Your task to perform on an android device: create a new album in the google photos Image 0: 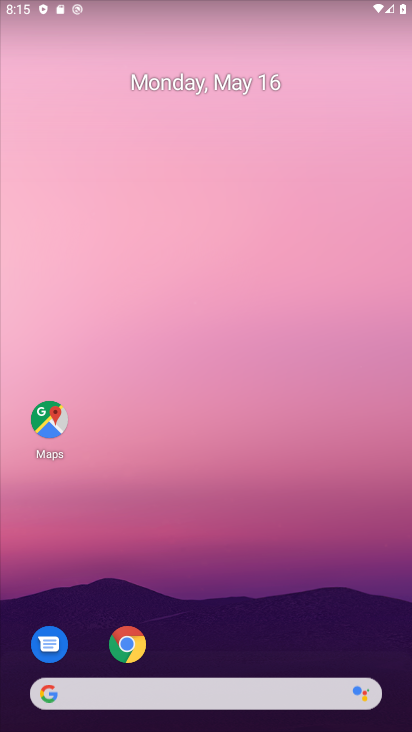
Step 0: drag from (224, 643) to (269, 73)
Your task to perform on an android device: create a new album in the google photos Image 1: 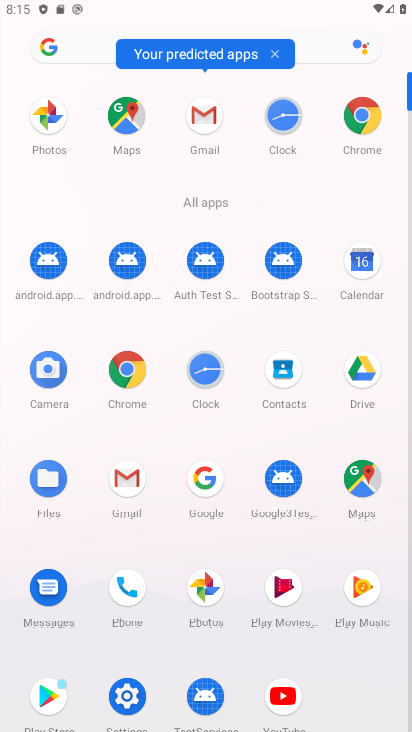
Step 1: click (47, 113)
Your task to perform on an android device: create a new album in the google photos Image 2: 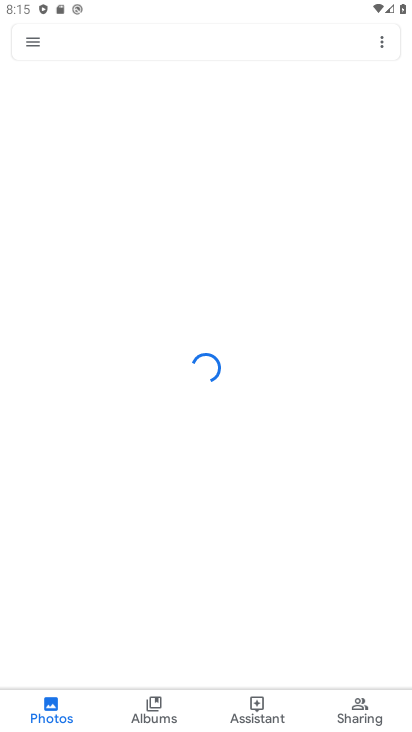
Step 2: click (146, 716)
Your task to perform on an android device: create a new album in the google photos Image 3: 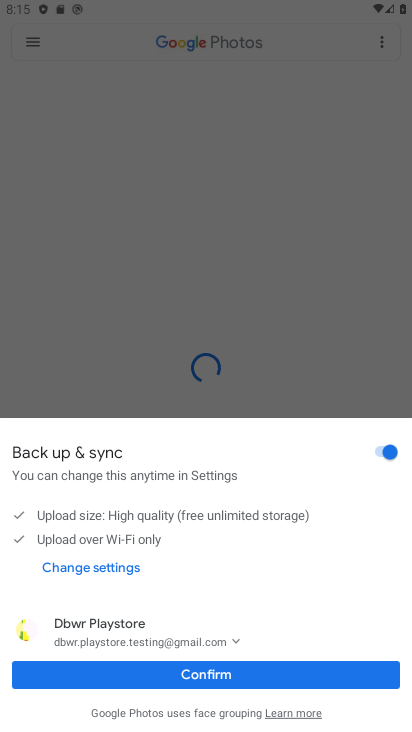
Step 3: click (191, 670)
Your task to perform on an android device: create a new album in the google photos Image 4: 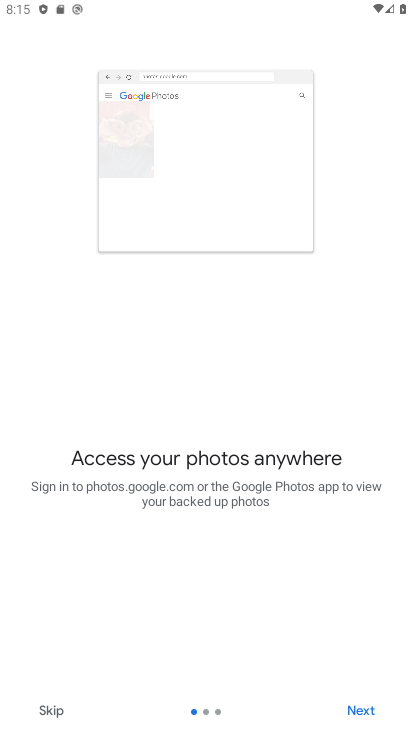
Step 4: click (69, 715)
Your task to perform on an android device: create a new album in the google photos Image 5: 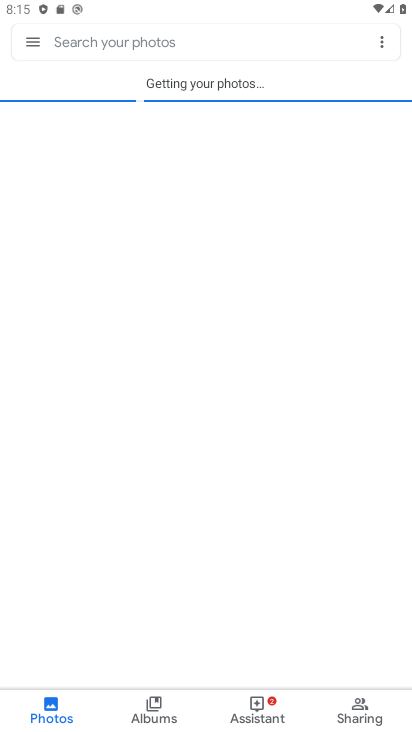
Step 5: click (139, 718)
Your task to perform on an android device: create a new album in the google photos Image 6: 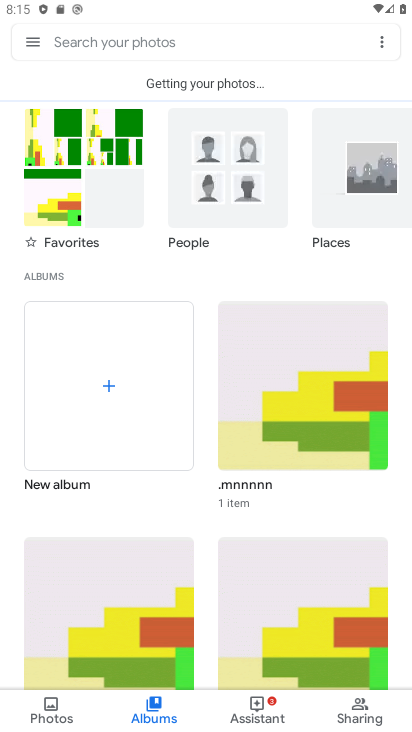
Step 6: click (113, 388)
Your task to perform on an android device: create a new album in the google photos Image 7: 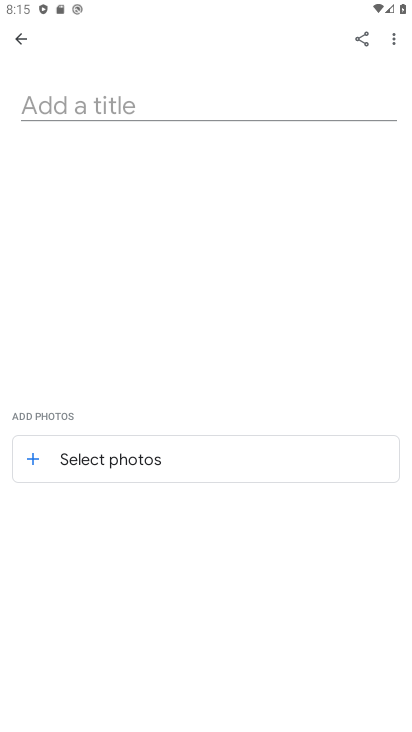
Step 7: type "gjdc"
Your task to perform on an android device: create a new album in the google photos Image 8: 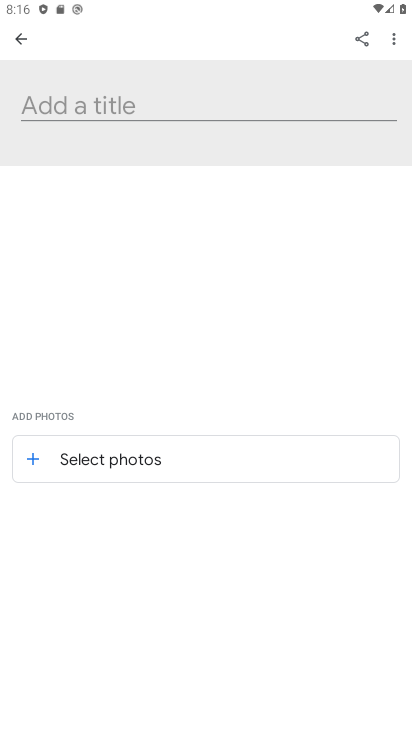
Step 8: click (100, 106)
Your task to perform on an android device: create a new album in the google photos Image 9: 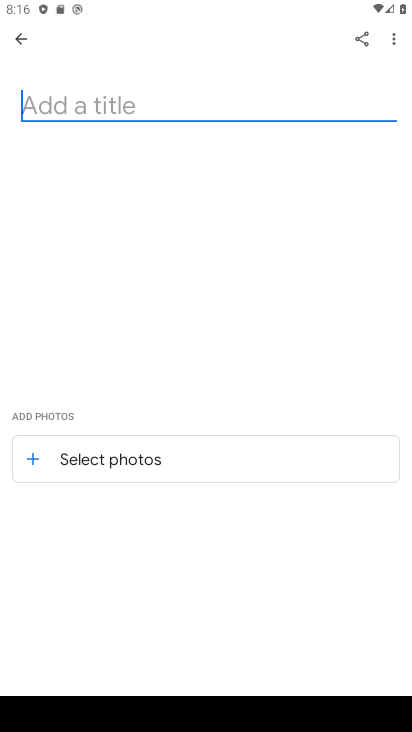
Step 9: type "jhg"
Your task to perform on an android device: create a new album in the google photos Image 10: 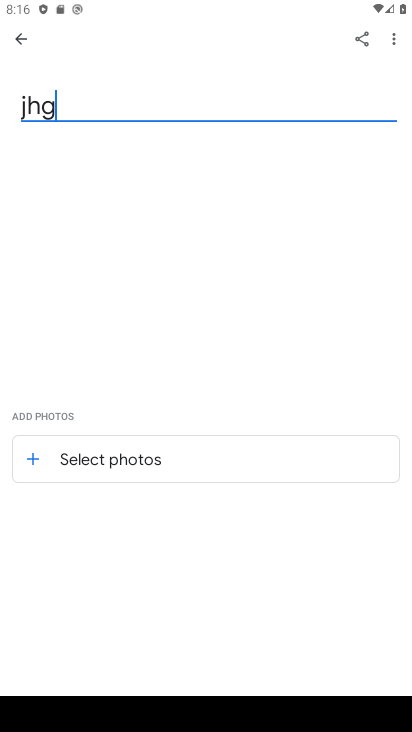
Step 10: click (36, 462)
Your task to perform on an android device: create a new album in the google photos Image 11: 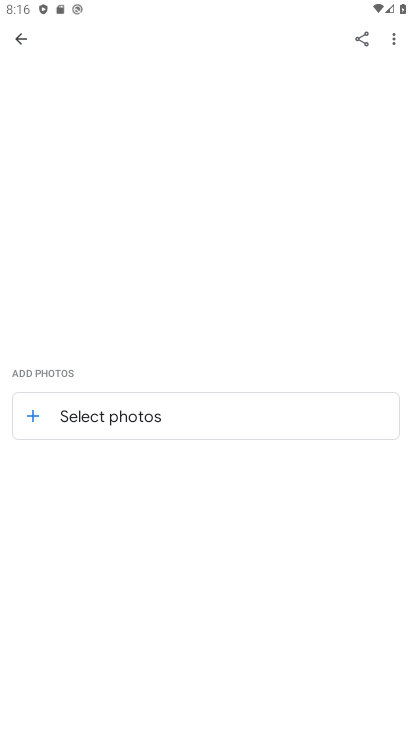
Step 11: click (29, 419)
Your task to perform on an android device: create a new album in the google photos Image 12: 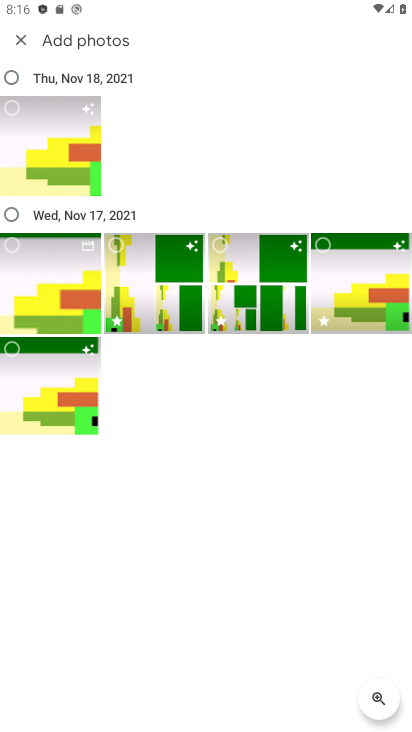
Step 12: click (35, 162)
Your task to perform on an android device: create a new album in the google photos Image 13: 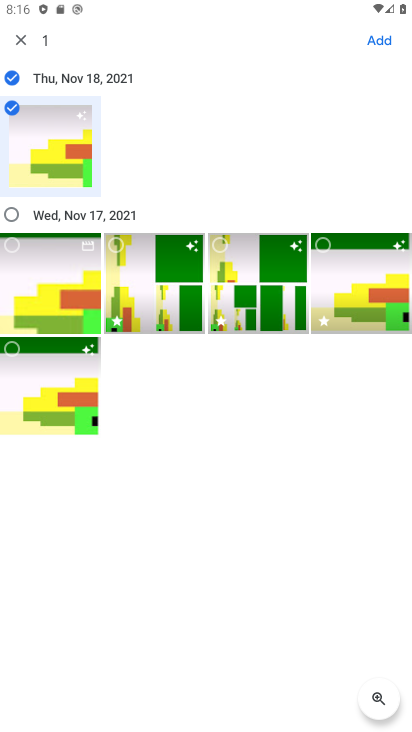
Step 13: click (383, 44)
Your task to perform on an android device: create a new album in the google photos Image 14: 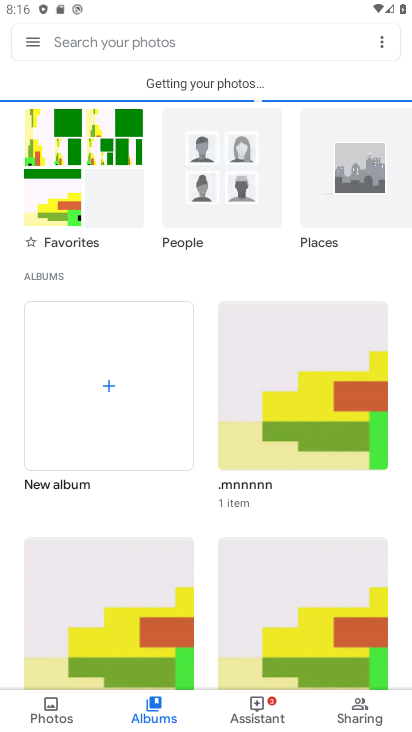
Step 14: task complete